Your task to perform on an android device: open chrome privacy settings Image 0: 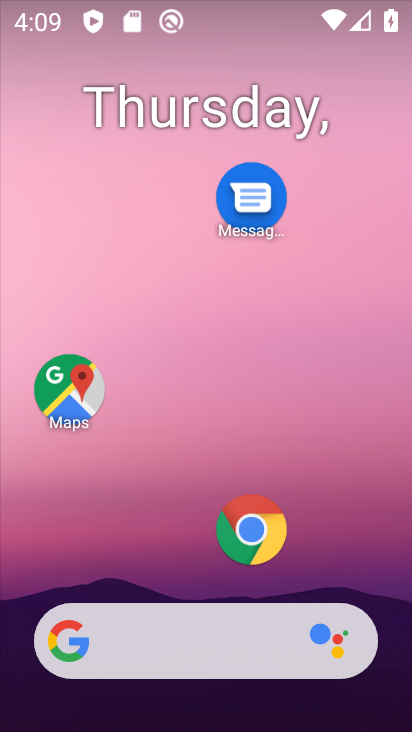
Step 0: click (251, 531)
Your task to perform on an android device: open chrome privacy settings Image 1: 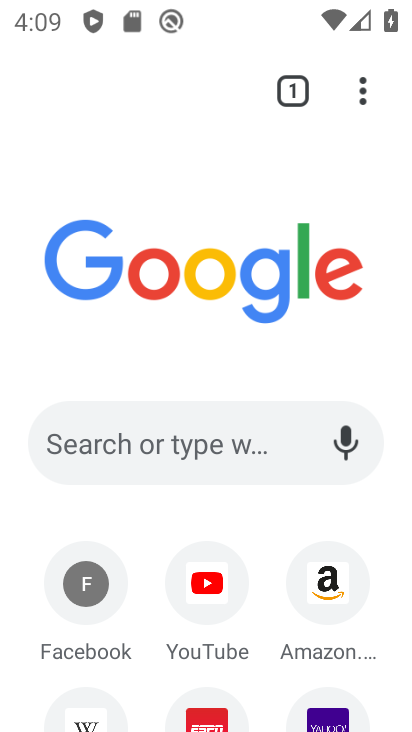
Step 1: drag from (361, 84) to (158, 573)
Your task to perform on an android device: open chrome privacy settings Image 2: 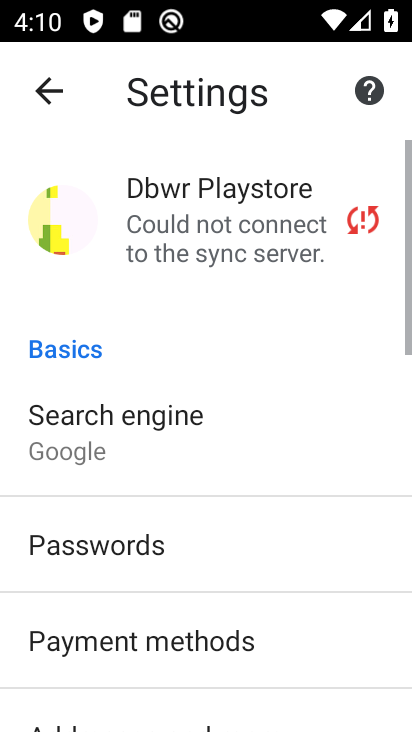
Step 2: drag from (132, 631) to (299, 76)
Your task to perform on an android device: open chrome privacy settings Image 3: 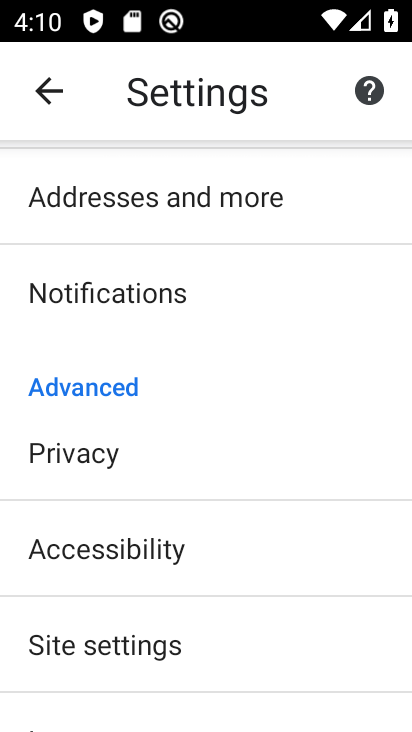
Step 3: click (87, 453)
Your task to perform on an android device: open chrome privacy settings Image 4: 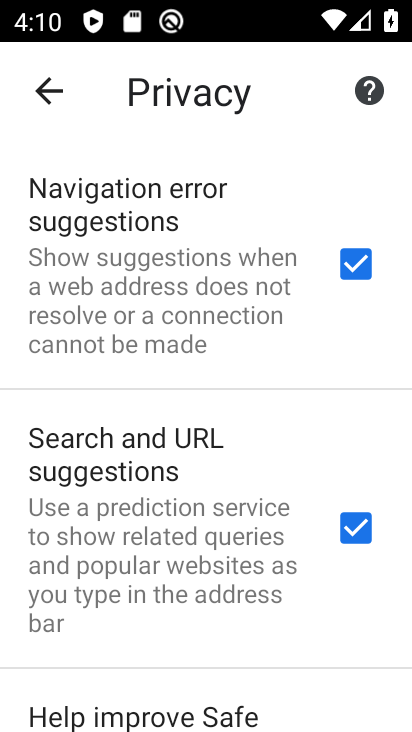
Step 4: task complete